Your task to perform on an android device: Play the last video I watched on Youtube Image 0: 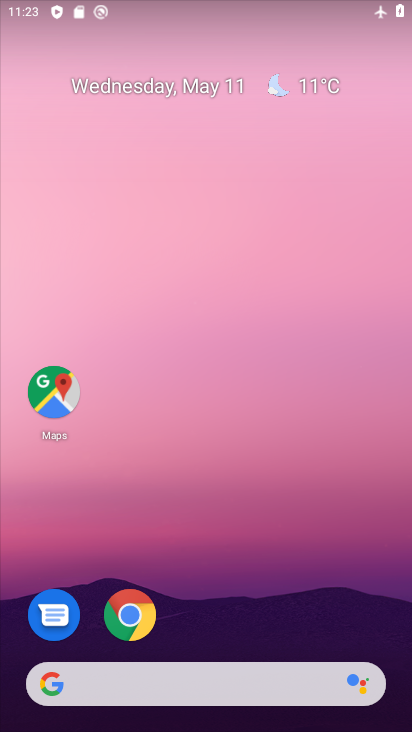
Step 0: drag from (285, 595) to (272, 148)
Your task to perform on an android device: Play the last video I watched on Youtube Image 1: 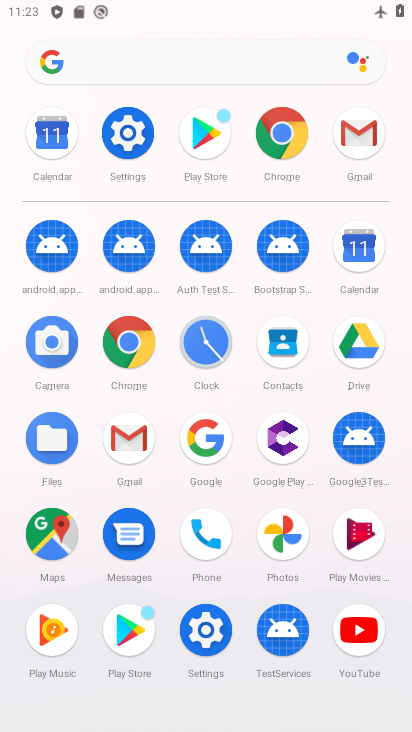
Step 1: click (361, 629)
Your task to perform on an android device: Play the last video I watched on Youtube Image 2: 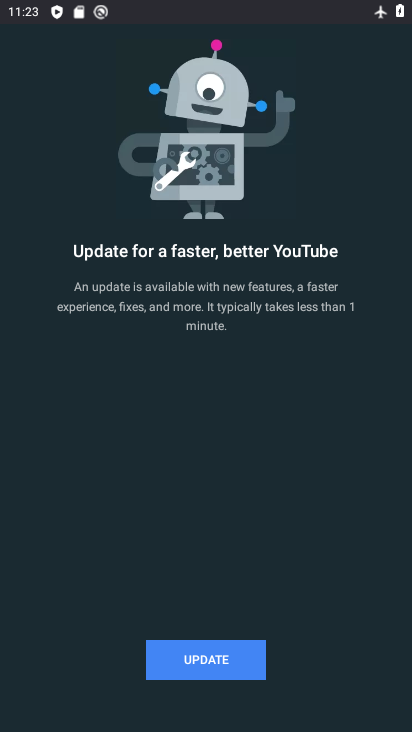
Step 2: click (218, 663)
Your task to perform on an android device: Play the last video I watched on Youtube Image 3: 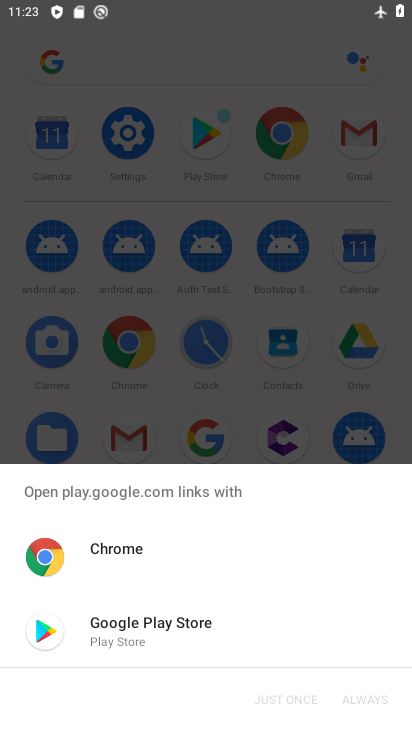
Step 3: click (141, 615)
Your task to perform on an android device: Play the last video I watched on Youtube Image 4: 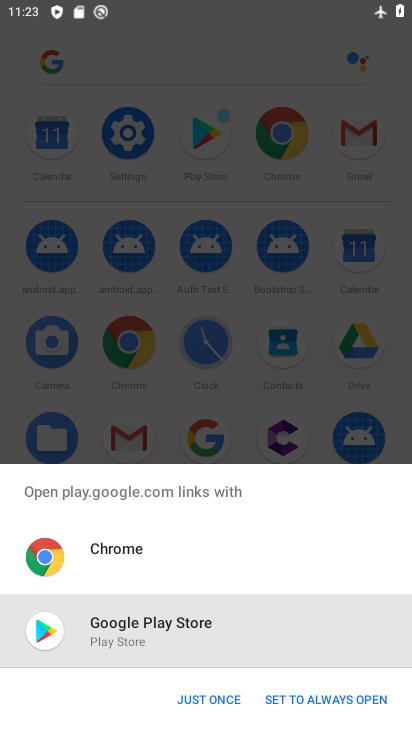
Step 4: click (206, 697)
Your task to perform on an android device: Play the last video I watched on Youtube Image 5: 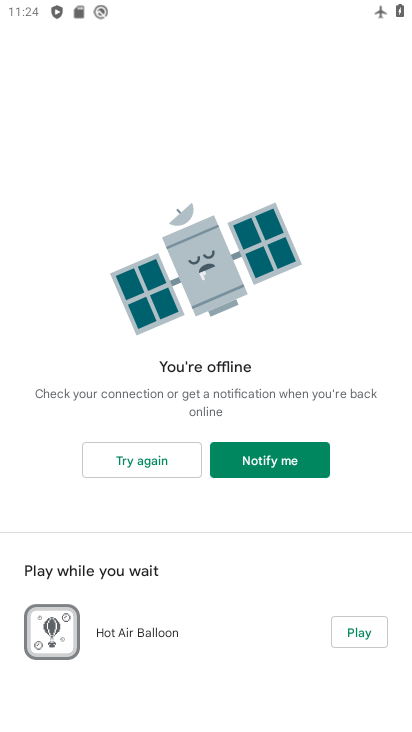
Step 5: task complete